Your task to perform on an android device: toggle pop-ups in chrome Image 0: 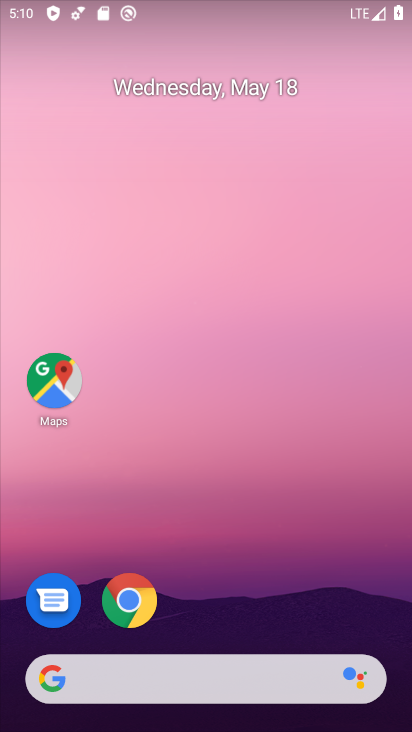
Step 0: click (132, 596)
Your task to perform on an android device: toggle pop-ups in chrome Image 1: 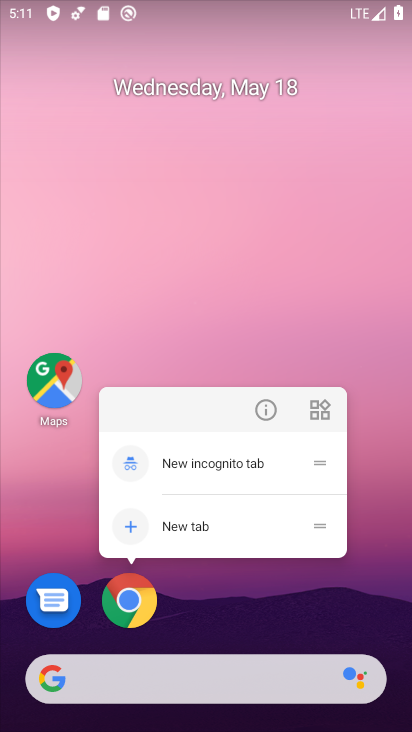
Step 1: click (266, 410)
Your task to perform on an android device: toggle pop-ups in chrome Image 2: 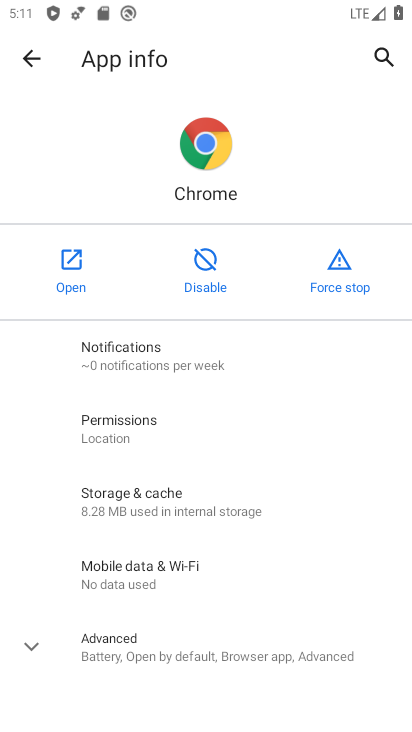
Step 2: drag from (194, 537) to (236, 420)
Your task to perform on an android device: toggle pop-ups in chrome Image 3: 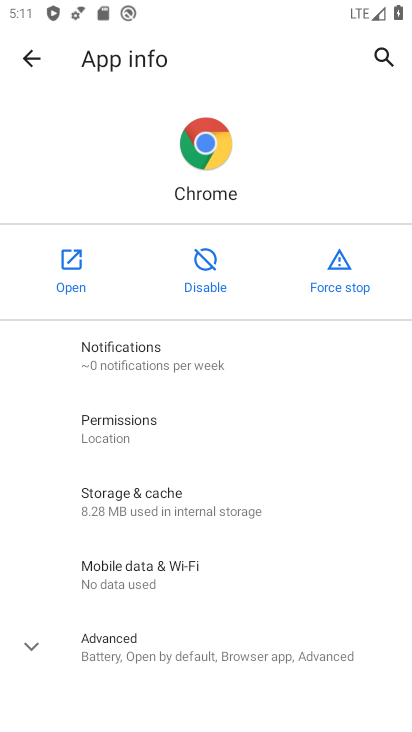
Step 3: click (169, 657)
Your task to perform on an android device: toggle pop-ups in chrome Image 4: 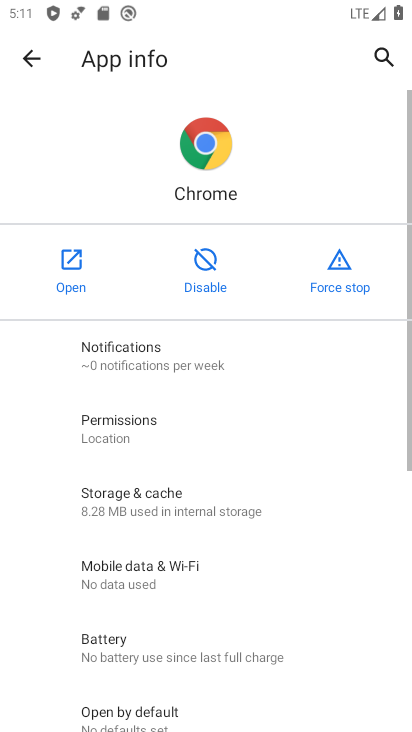
Step 4: drag from (223, 623) to (243, 523)
Your task to perform on an android device: toggle pop-ups in chrome Image 5: 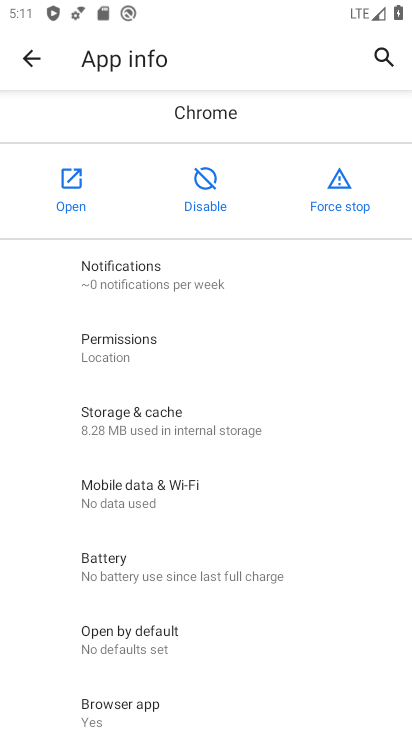
Step 5: drag from (185, 634) to (211, 503)
Your task to perform on an android device: toggle pop-ups in chrome Image 6: 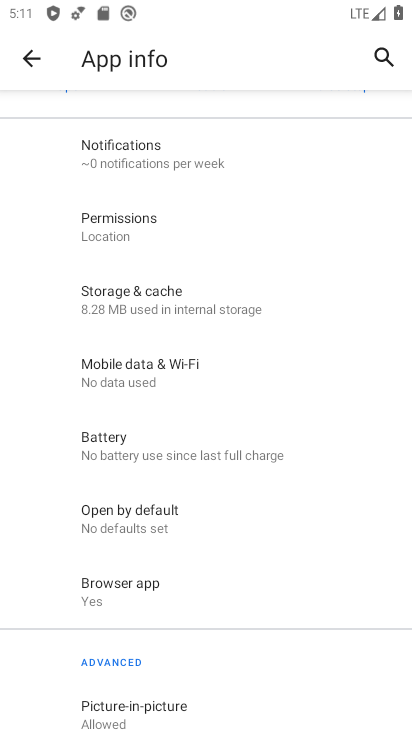
Step 6: drag from (164, 635) to (221, 511)
Your task to perform on an android device: toggle pop-ups in chrome Image 7: 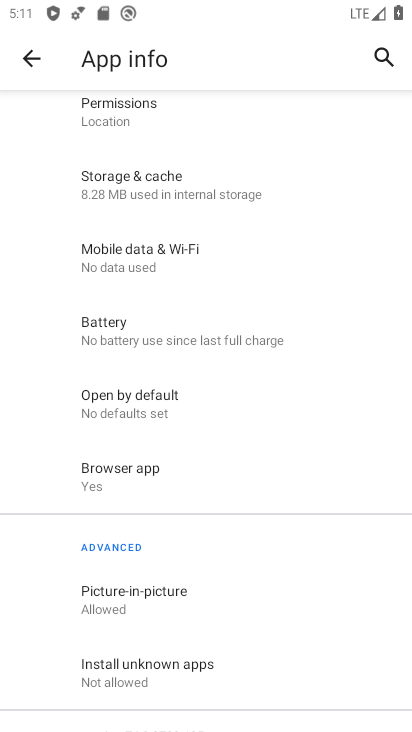
Step 7: click (145, 596)
Your task to perform on an android device: toggle pop-ups in chrome Image 8: 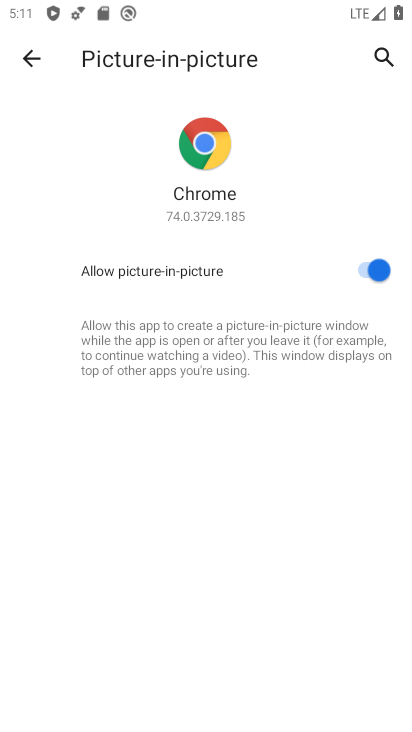
Step 8: click (371, 271)
Your task to perform on an android device: toggle pop-ups in chrome Image 9: 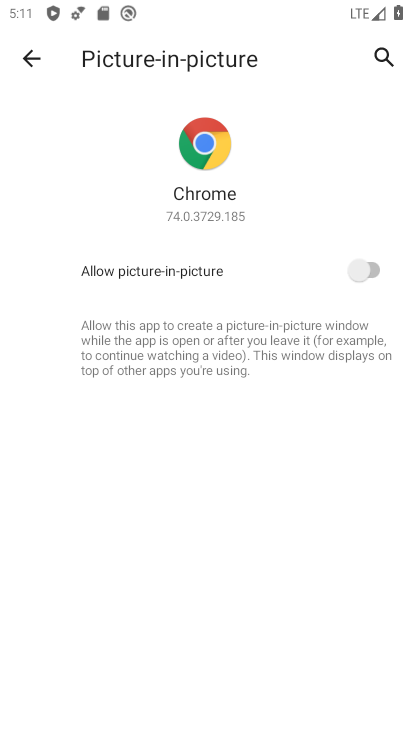
Step 9: task complete